Your task to perform on an android device: What is the news today? Image 0: 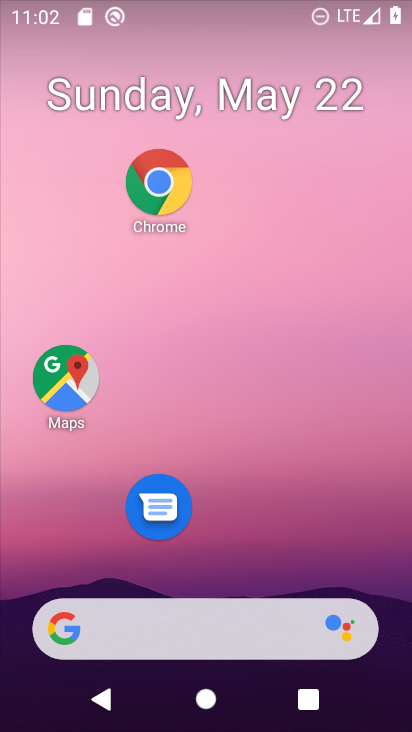
Step 0: click (235, 638)
Your task to perform on an android device: What is the news today? Image 1: 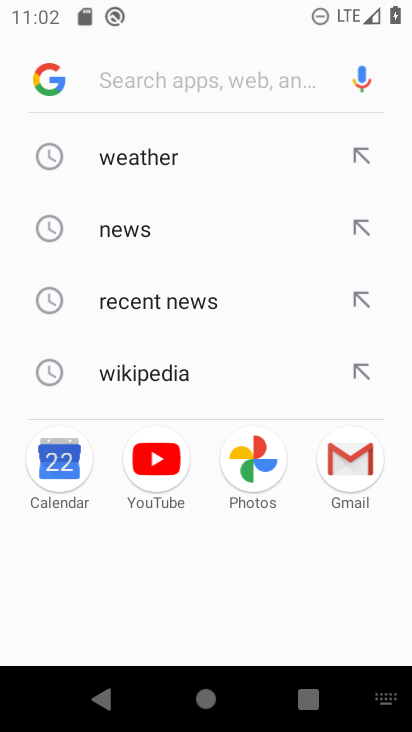
Step 1: type "What is the news today?"
Your task to perform on an android device: What is the news today? Image 2: 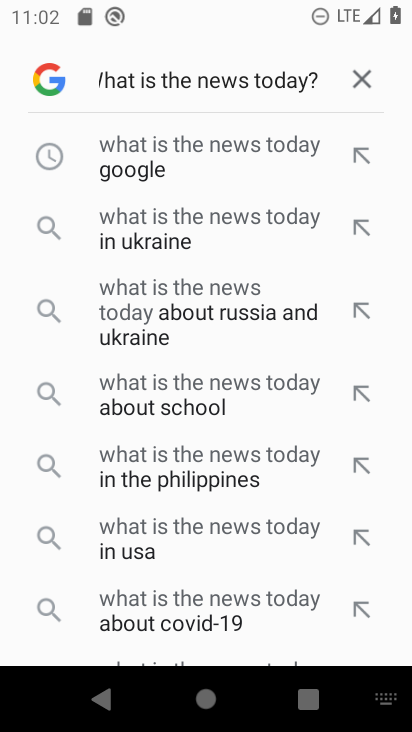
Step 2: click (252, 152)
Your task to perform on an android device: What is the news today? Image 3: 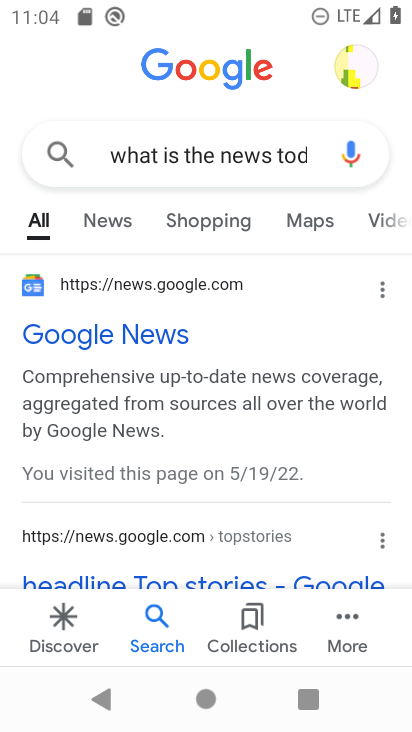
Step 3: task complete